Your task to perform on an android device: Is it going to rain today? Image 0: 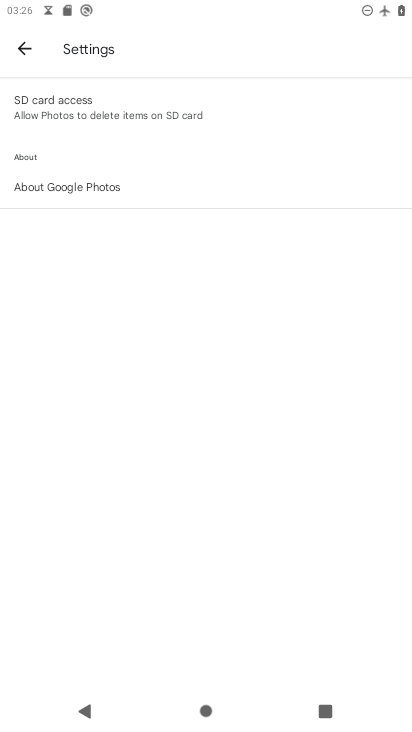
Step 0: press home button
Your task to perform on an android device: Is it going to rain today? Image 1: 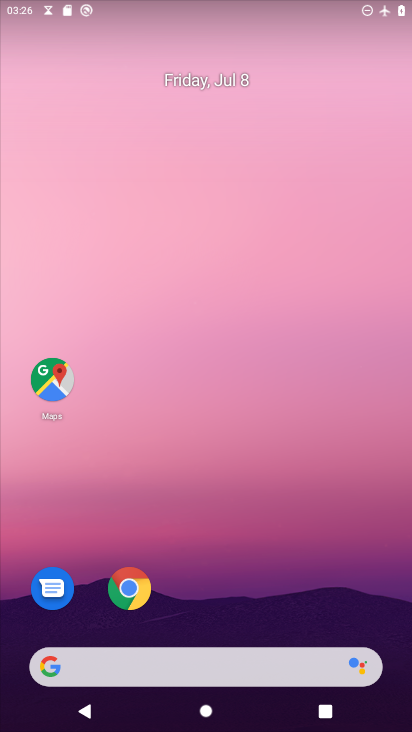
Step 1: drag from (215, 607) to (210, 230)
Your task to perform on an android device: Is it going to rain today? Image 2: 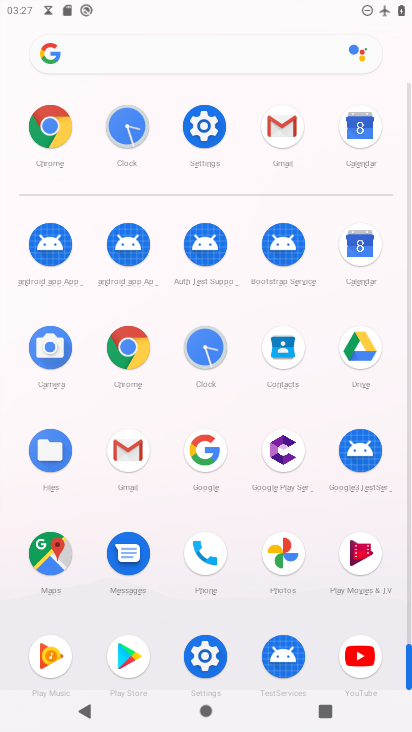
Step 2: click (203, 468)
Your task to perform on an android device: Is it going to rain today? Image 3: 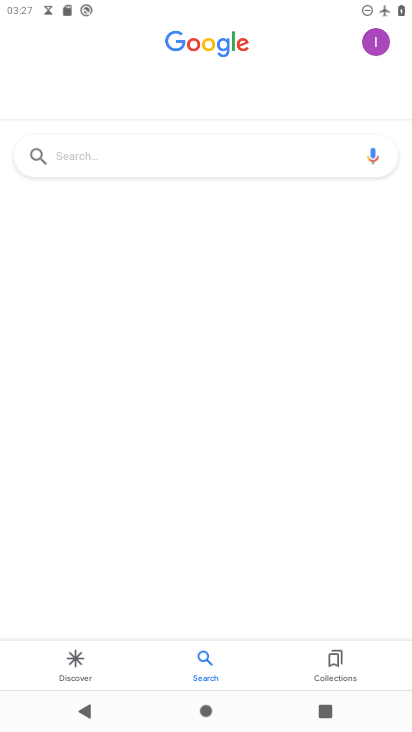
Step 3: click (176, 154)
Your task to perform on an android device: Is it going to rain today? Image 4: 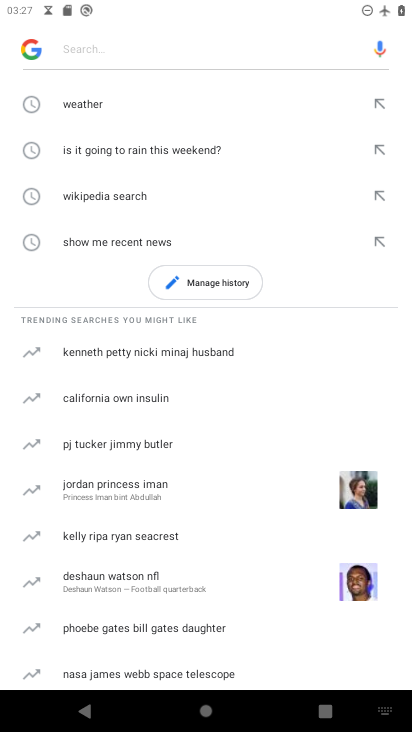
Step 4: type "whether"
Your task to perform on an android device: Is it going to rain today? Image 5: 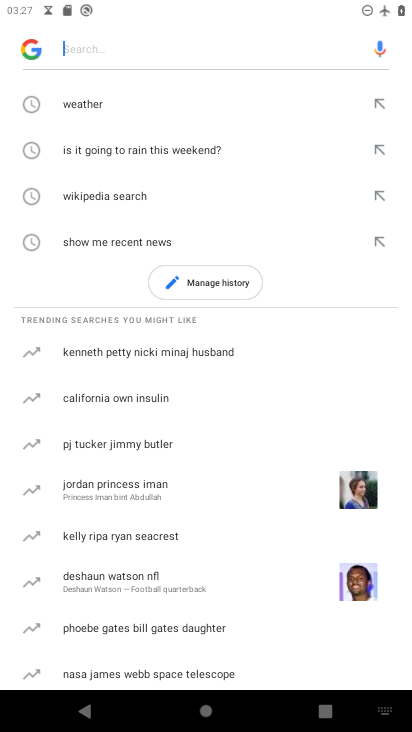
Step 5: click (87, 99)
Your task to perform on an android device: Is it going to rain today? Image 6: 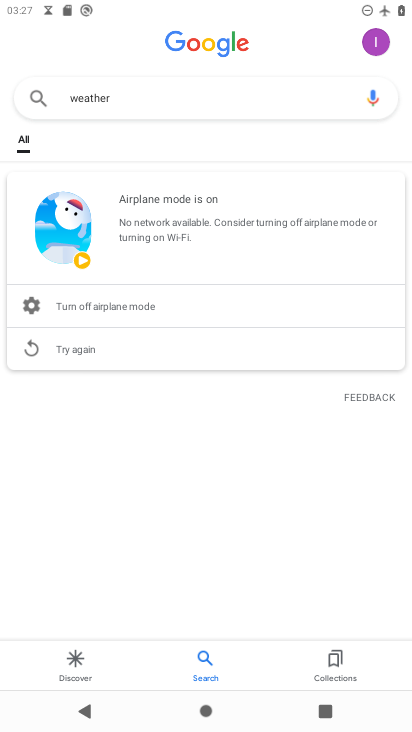
Step 6: task complete